Your task to perform on an android device: see sites visited before in the chrome app Image 0: 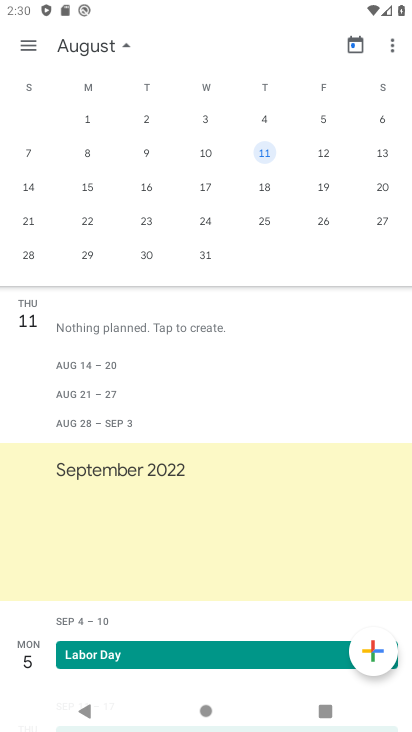
Step 0: press home button
Your task to perform on an android device: see sites visited before in the chrome app Image 1: 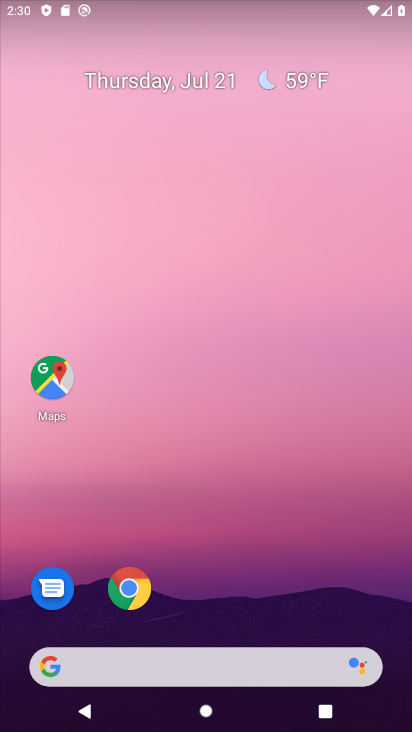
Step 1: click (130, 584)
Your task to perform on an android device: see sites visited before in the chrome app Image 2: 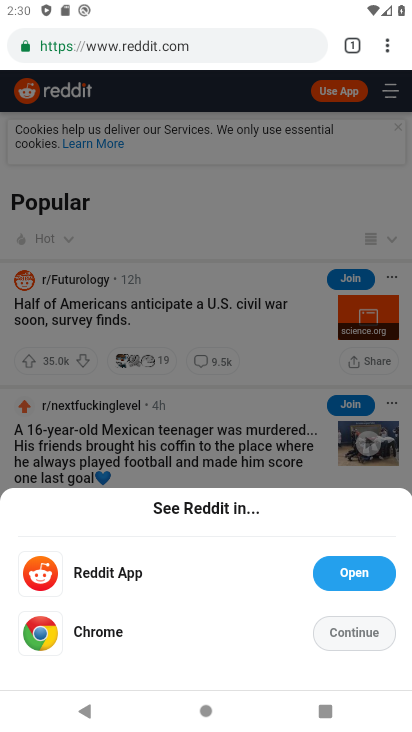
Step 2: click (83, 627)
Your task to perform on an android device: see sites visited before in the chrome app Image 3: 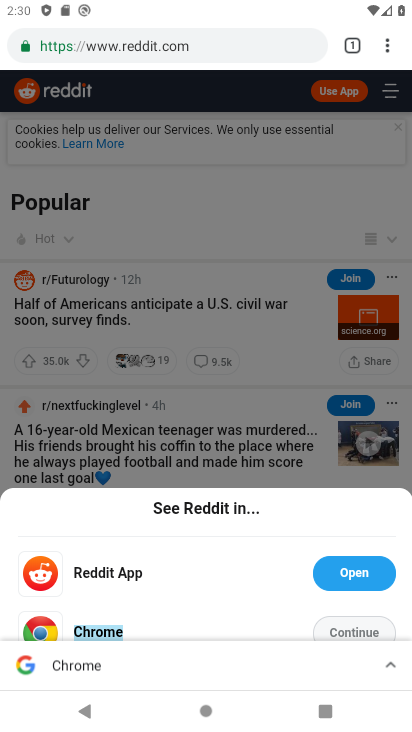
Step 3: click (404, 664)
Your task to perform on an android device: see sites visited before in the chrome app Image 4: 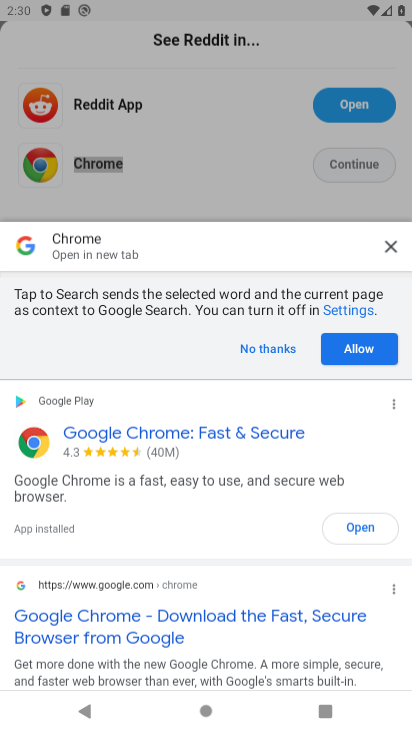
Step 4: click (389, 251)
Your task to perform on an android device: see sites visited before in the chrome app Image 5: 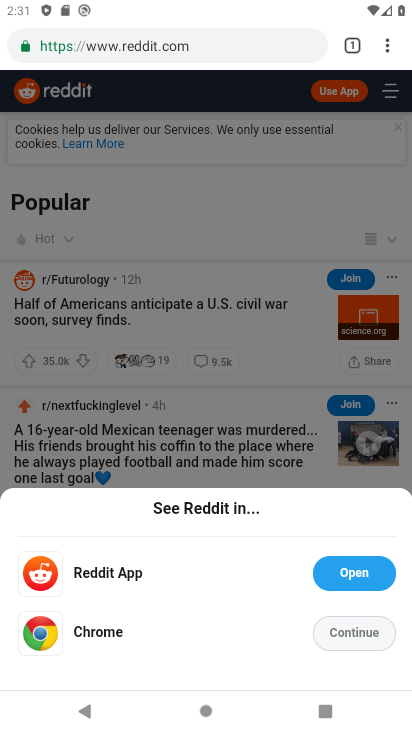
Step 5: click (79, 709)
Your task to perform on an android device: see sites visited before in the chrome app Image 6: 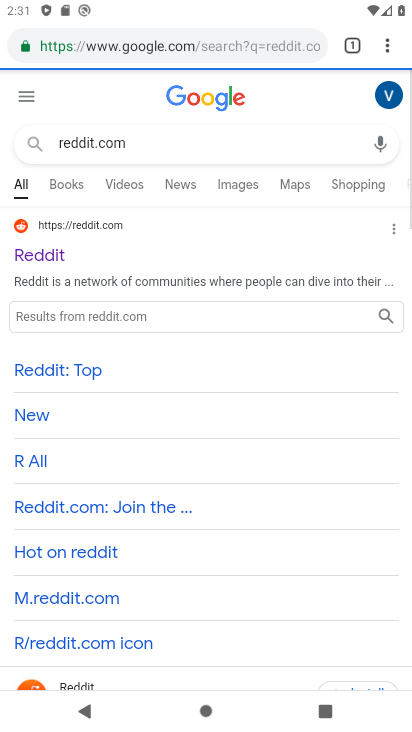
Step 6: press back button
Your task to perform on an android device: see sites visited before in the chrome app Image 7: 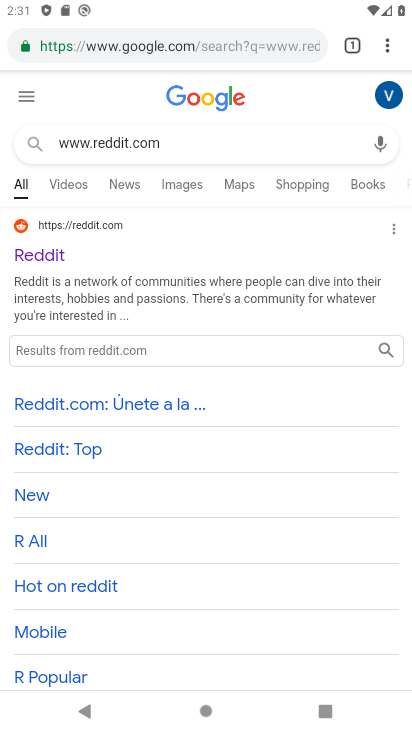
Step 7: click (387, 40)
Your task to perform on an android device: see sites visited before in the chrome app Image 8: 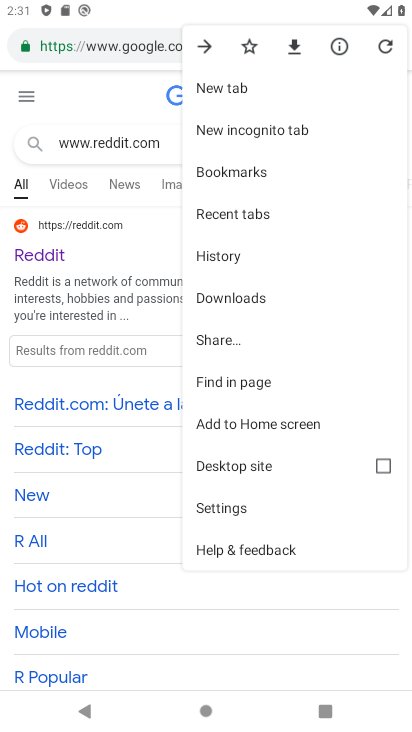
Step 8: click (239, 508)
Your task to perform on an android device: see sites visited before in the chrome app Image 9: 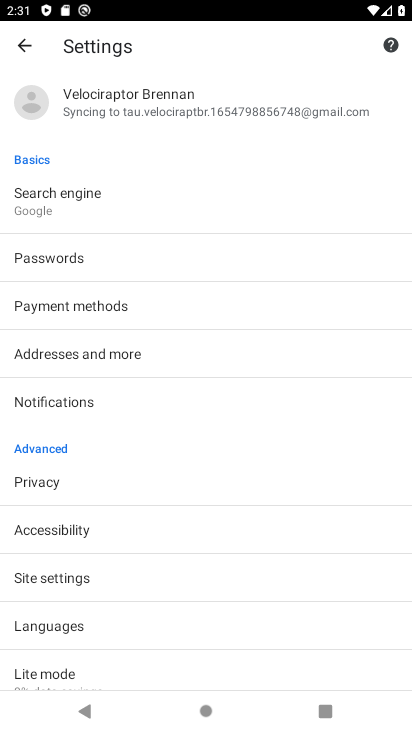
Step 9: click (20, 49)
Your task to perform on an android device: see sites visited before in the chrome app Image 10: 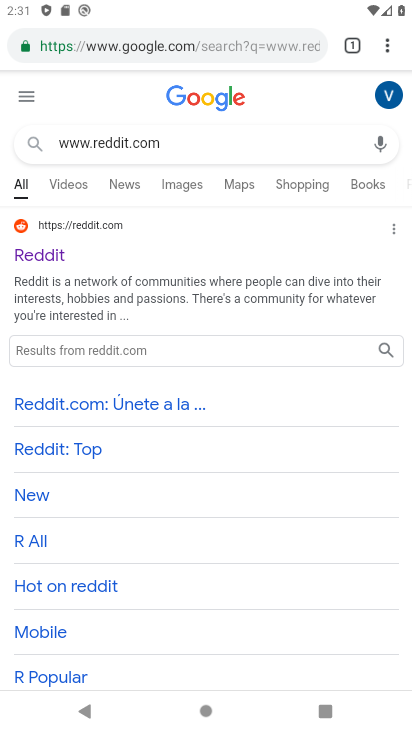
Step 10: click (386, 45)
Your task to perform on an android device: see sites visited before in the chrome app Image 11: 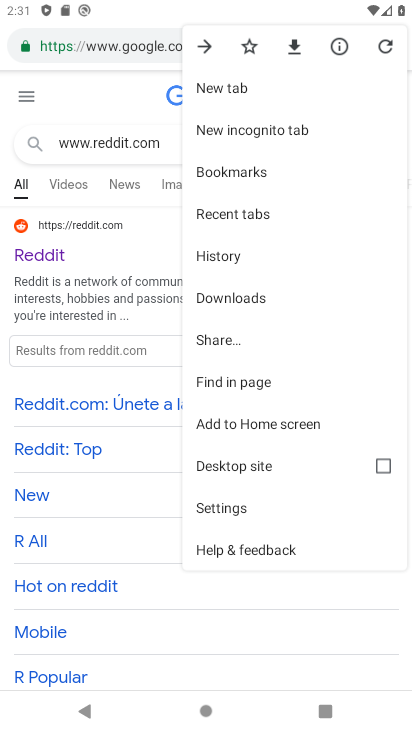
Step 11: click (239, 205)
Your task to perform on an android device: see sites visited before in the chrome app Image 12: 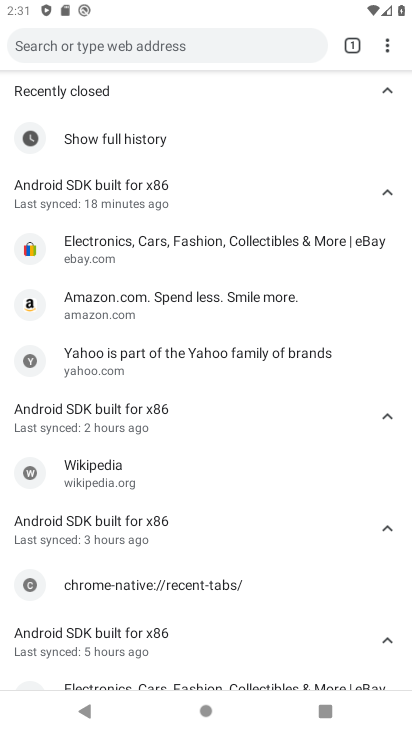
Step 12: task complete